Your task to perform on an android device: When is my next meeting? Image 0: 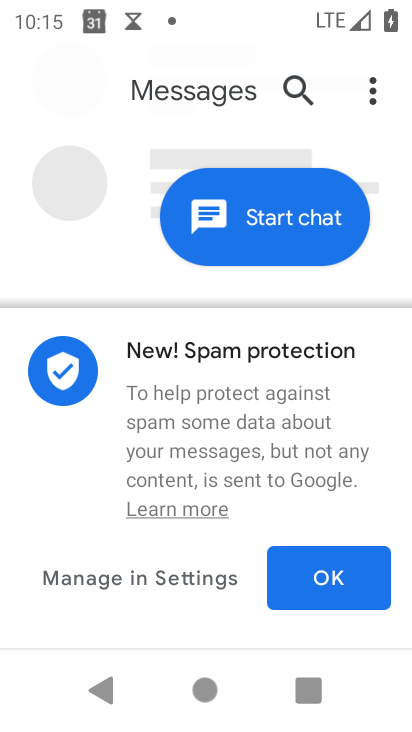
Step 0: press home button
Your task to perform on an android device: When is my next meeting? Image 1: 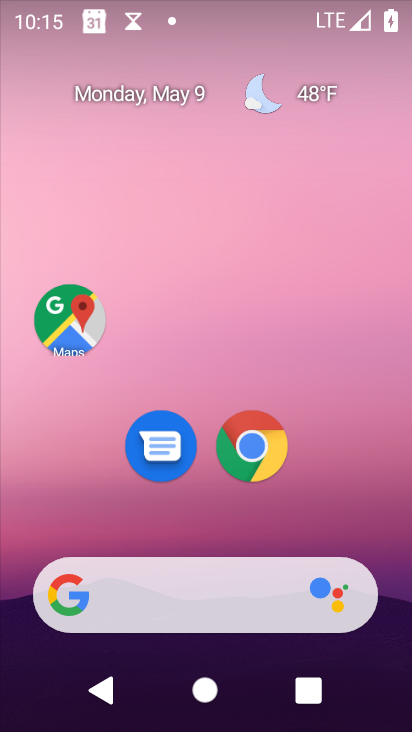
Step 1: click (182, 98)
Your task to perform on an android device: When is my next meeting? Image 2: 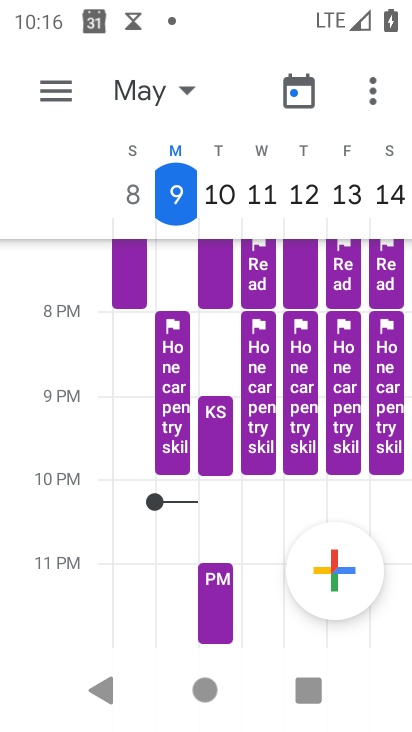
Step 2: click (63, 94)
Your task to perform on an android device: When is my next meeting? Image 3: 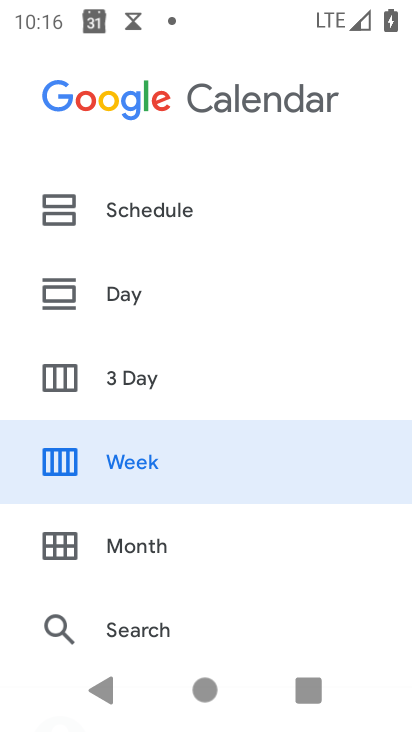
Step 3: click (119, 214)
Your task to perform on an android device: When is my next meeting? Image 4: 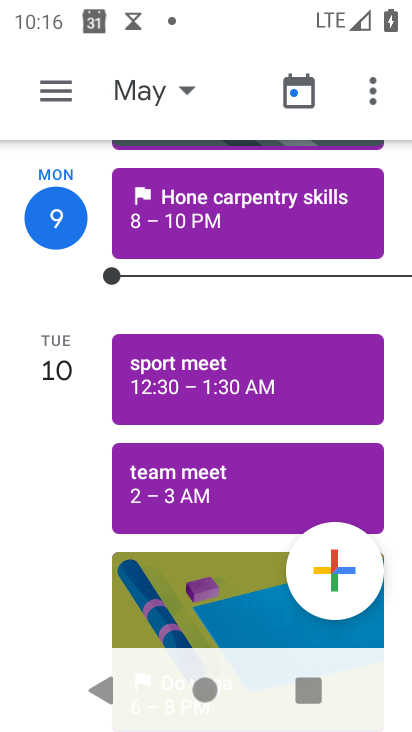
Step 4: task complete